Your task to perform on an android device: Open sound settings Image 0: 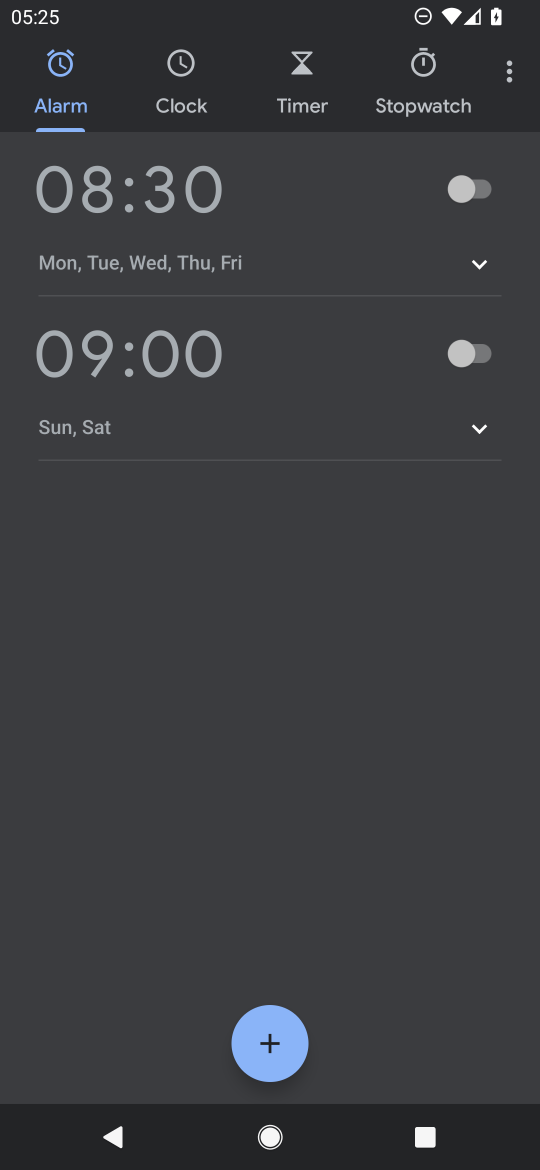
Step 0: press home button
Your task to perform on an android device: Open sound settings Image 1: 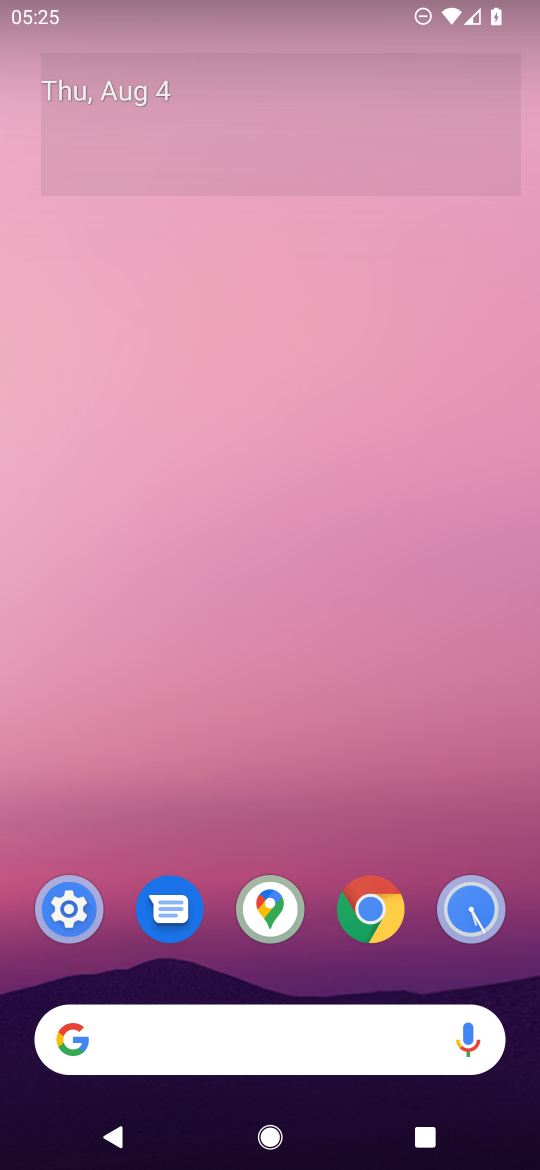
Step 1: press home button
Your task to perform on an android device: Open sound settings Image 2: 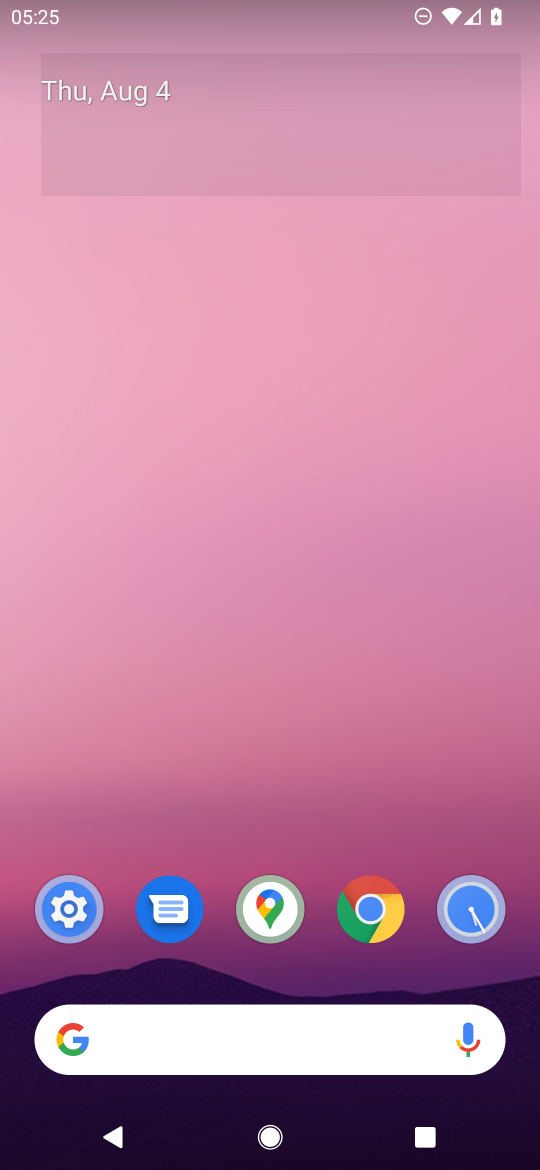
Step 2: drag from (333, 857) to (273, 25)
Your task to perform on an android device: Open sound settings Image 3: 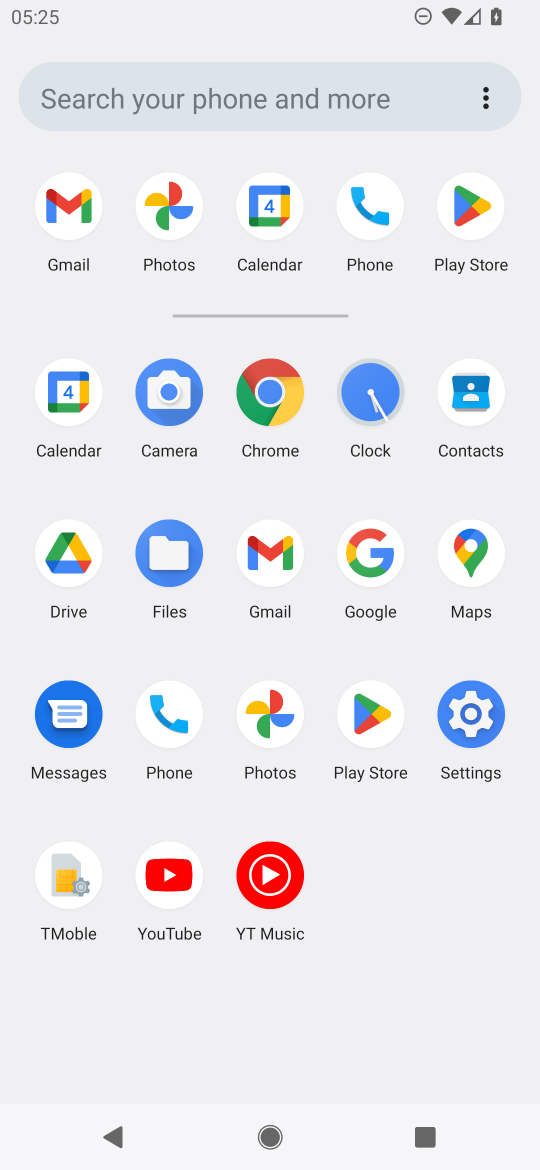
Step 3: click (460, 719)
Your task to perform on an android device: Open sound settings Image 4: 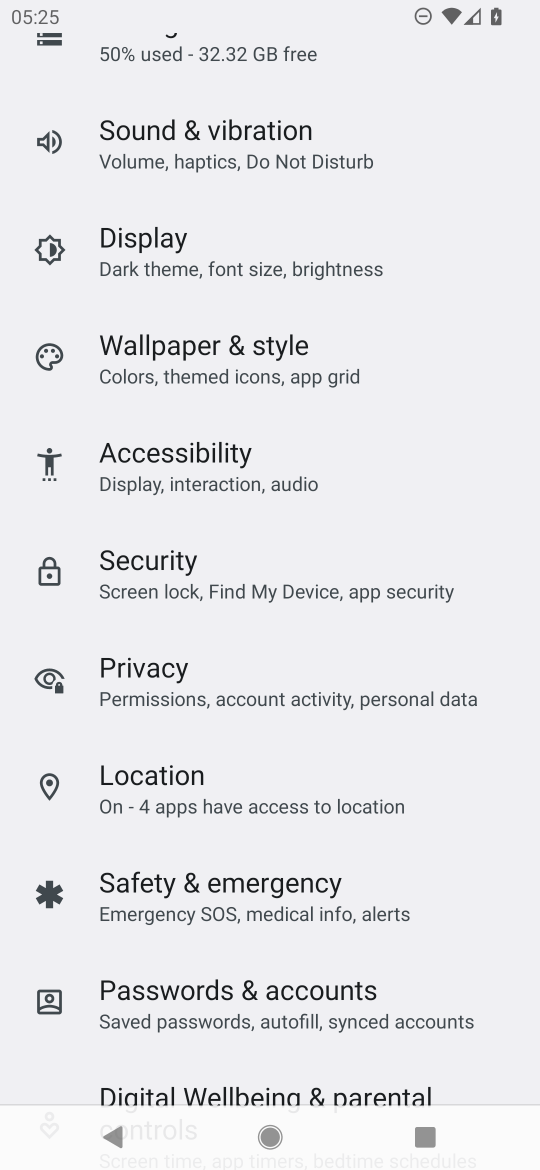
Step 4: click (149, 154)
Your task to perform on an android device: Open sound settings Image 5: 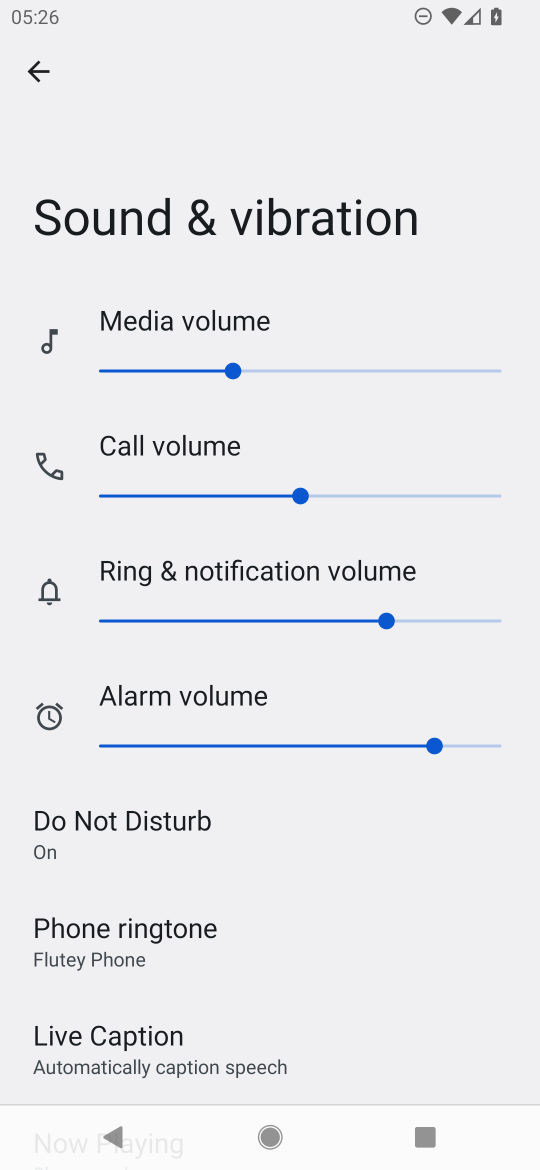
Step 5: task complete